Your task to perform on an android device: all mails in gmail Image 0: 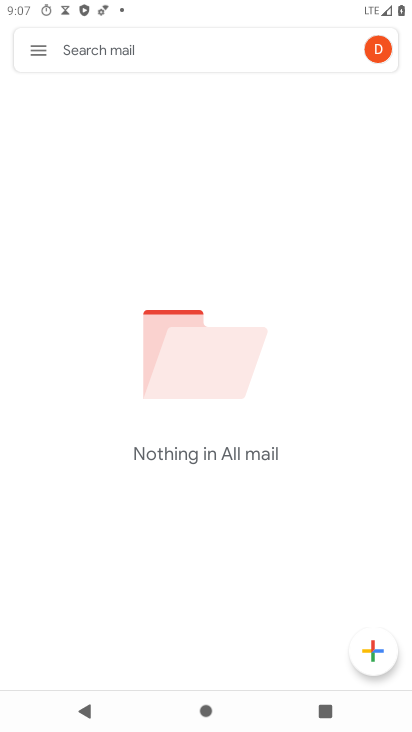
Step 0: task complete